Your task to perform on an android device: Open the web browser Image 0: 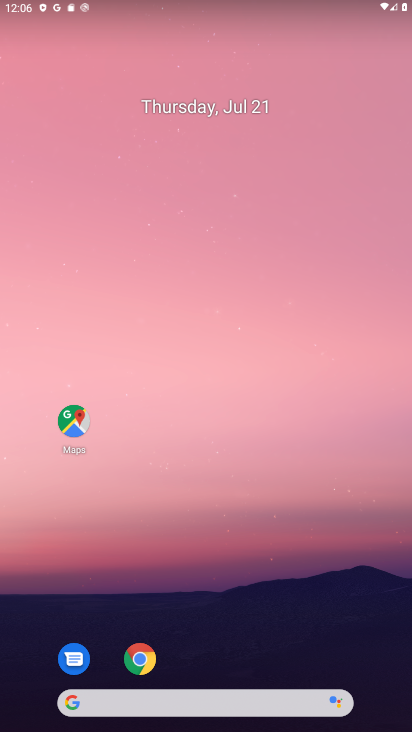
Step 0: click (131, 656)
Your task to perform on an android device: Open the web browser Image 1: 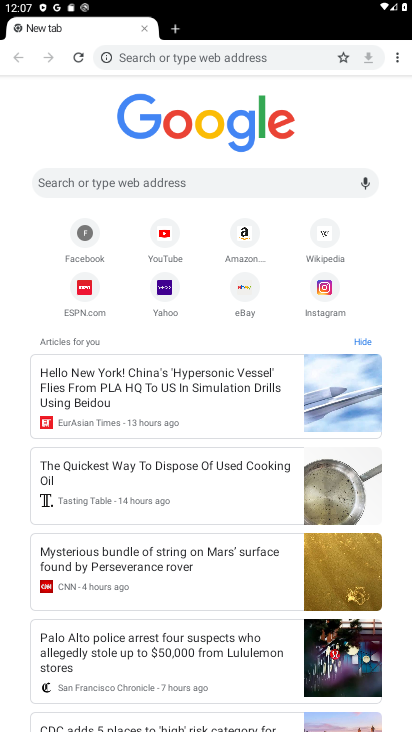
Step 1: task complete